Your task to perform on an android device: open app "Venmo" (install if not already installed) and enter user name: "bleedings@gmail.com" and password: "copied" Image 0: 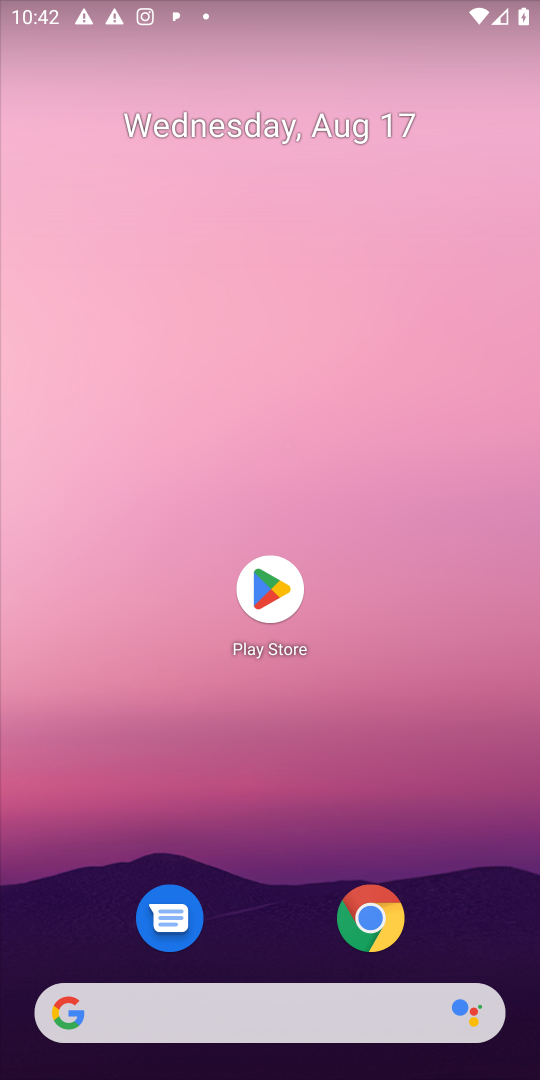
Step 0: press home button
Your task to perform on an android device: open app "Venmo" (install if not already installed) and enter user name: "bleedings@gmail.com" and password: "copied" Image 1: 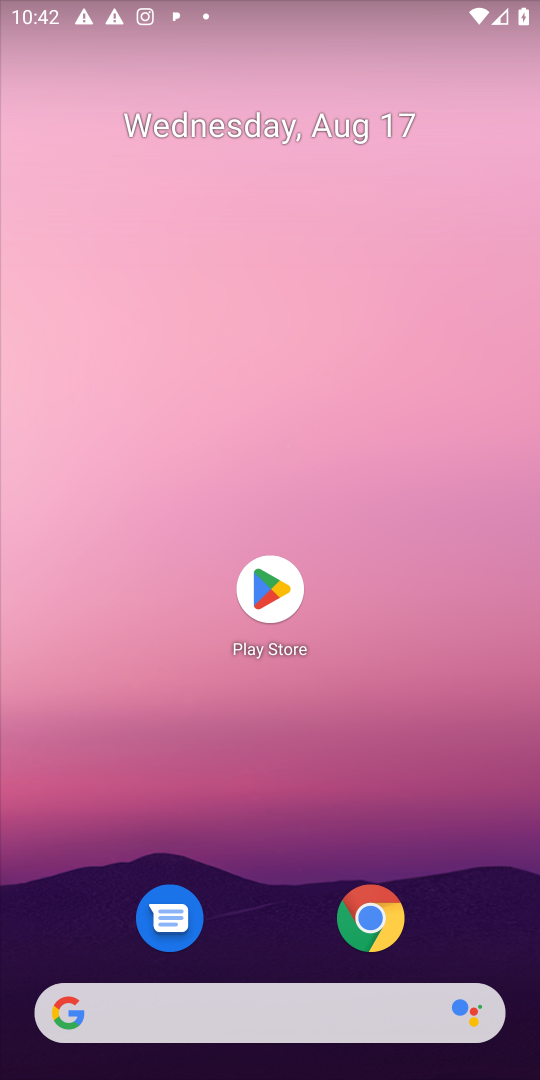
Step 1: click (271, 597)
Your task to perform on an android device: open app "Venmo" (install if not already installed) and enter user name: "bleedings@gmail.com" and password: "copied" Image 2: 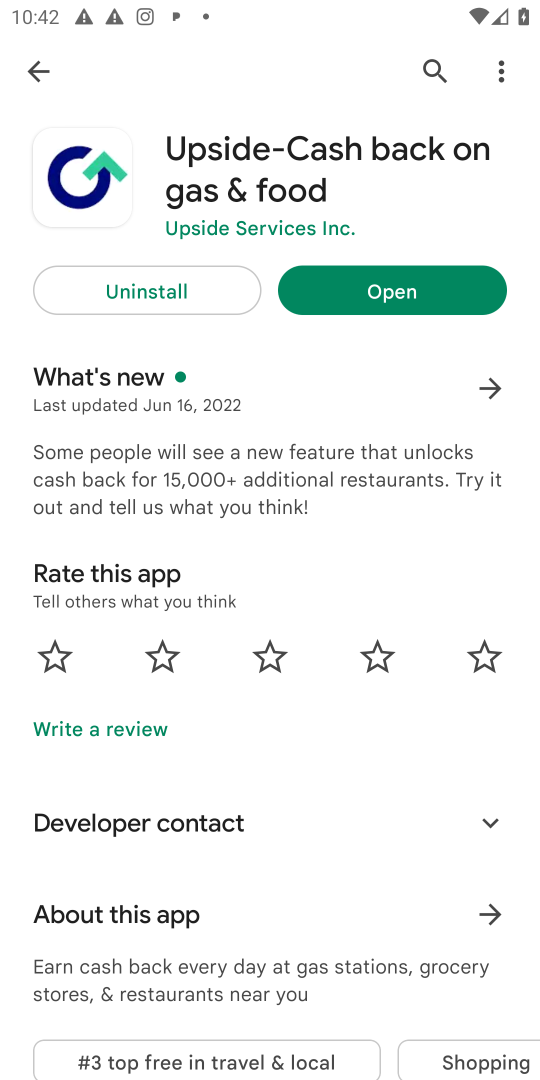
Step 2: click (431, 72)
Your task to perform on an android device: open app "Venmo" (install if not already installed) and enter user name: "bleedings@gmail.com" and password: "copied" Image 3: 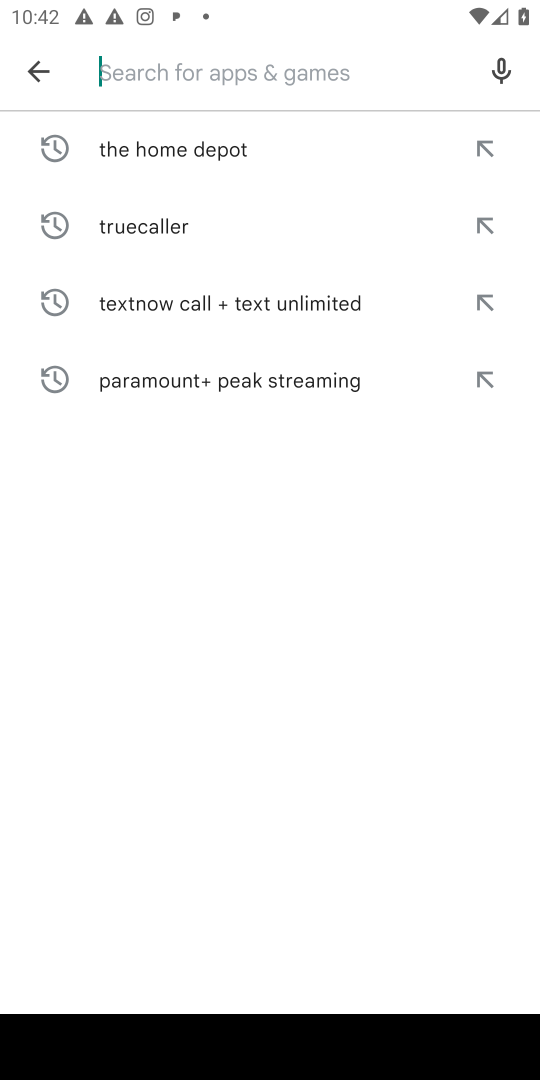
Step 3: type "Venmo"
Your task to perform on an android device: open app "Venmo" (install if not already installed) and enter user name: "bleedings@gmail.com" and password: "copied" Image 4: 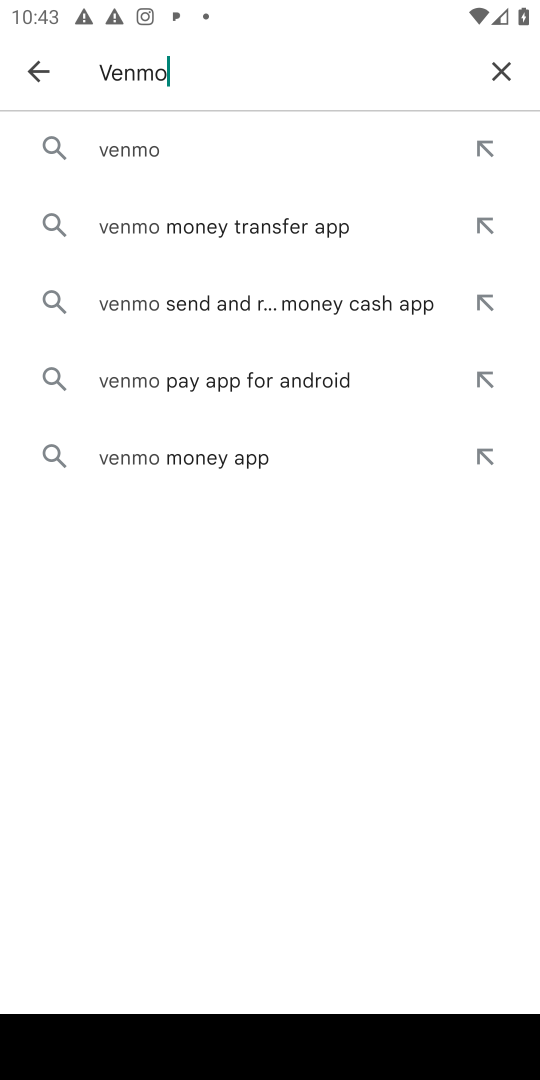
Step 4: click (147, 149)
Your task to perform on an android device: open app "Venmo" (install if not already installed) and enter user name: "bleedings@gmail.com" and password: "copied" Image 5: 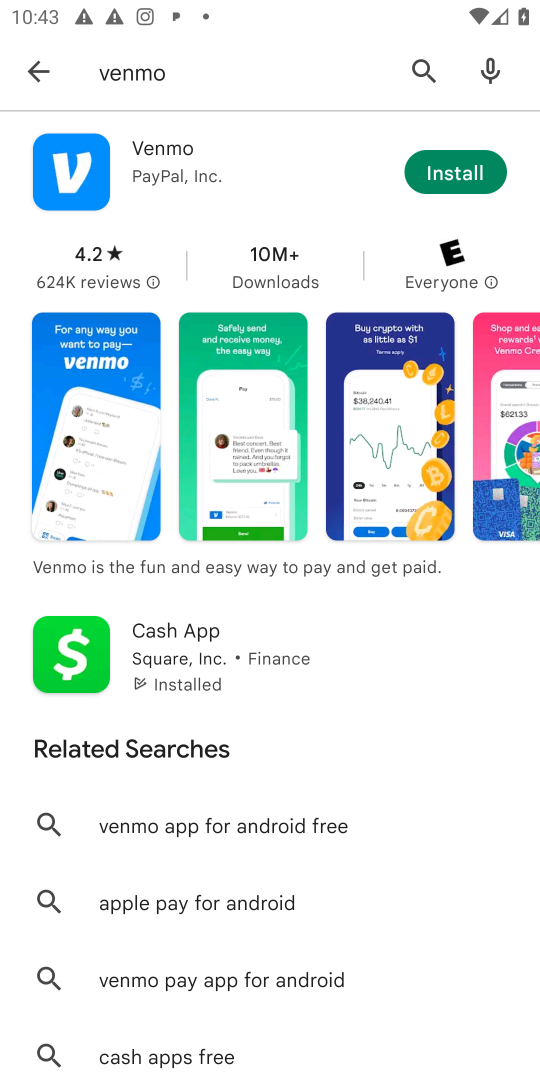
Step 5: click (460, 173)
Your task to perform on an android device: open app "Venmo" (install if not already installed) and enter user name: "bleedings@gmail.com" and password: "copied" Image 6: 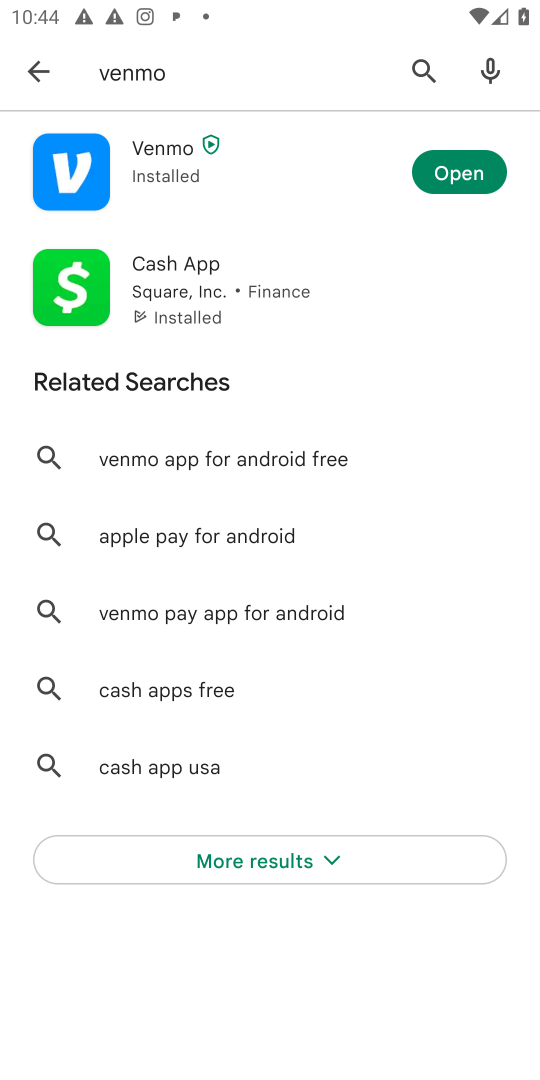
Step 6: click (441, 178)
Your task to perform on an android device: open app "Venmo" (install if not already installed) and enter user name: "bleedings@gmail.com" and password: "copied" Image 7: 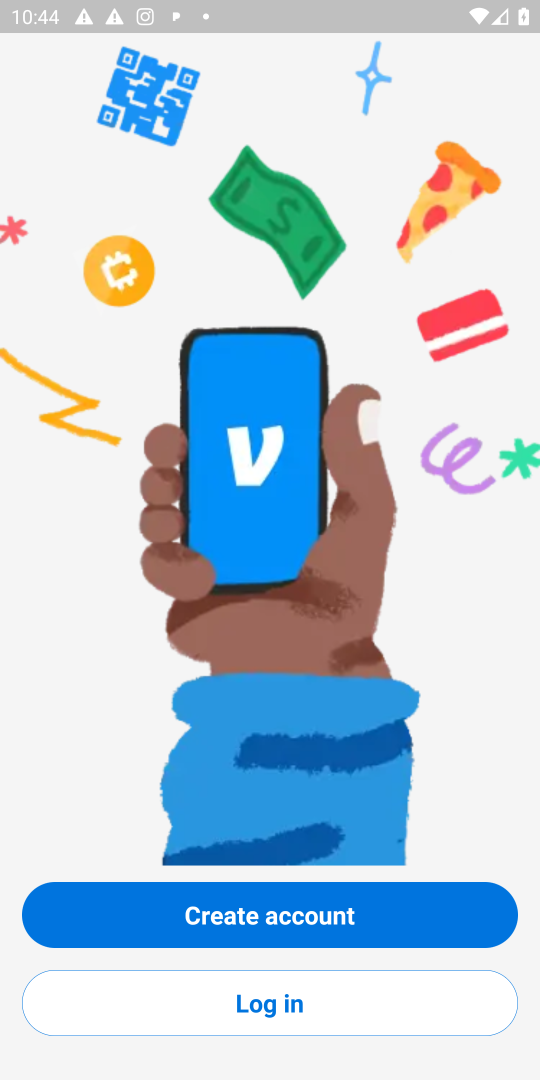
Step 7: click (265, 1005)
Your task to perform on an android device: open app "Venmo" (install if not already installed) and enter user name: "bleedings@gmail.com" and password: "copied" Image 8: 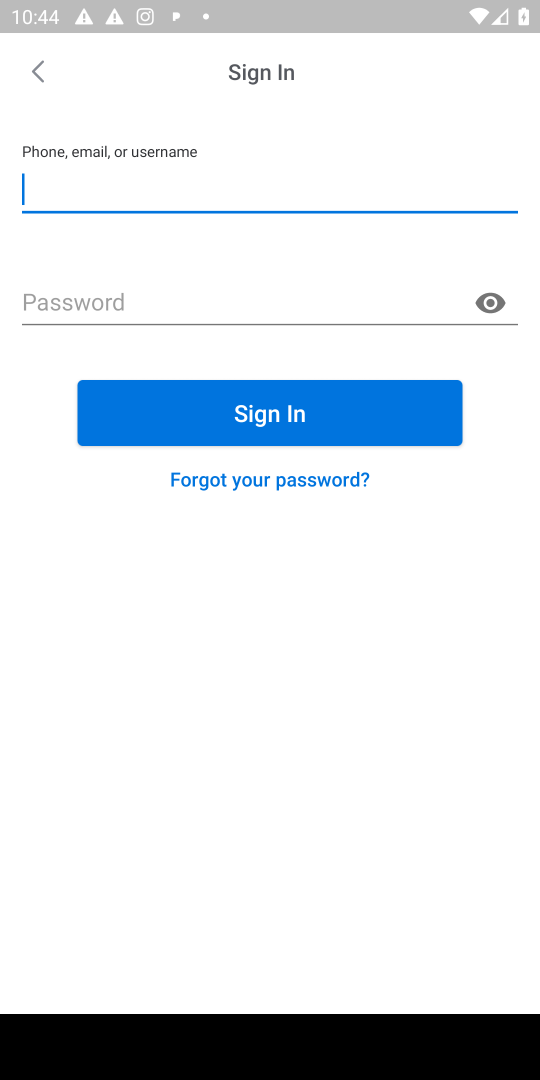
Step 8: type "bleedings@gmail.com"
Your task to perform on an android device: open app "Venmo" (install if not already installed) and enter user name: "bleedings@gmail.com" and password: "copied" Image 9: 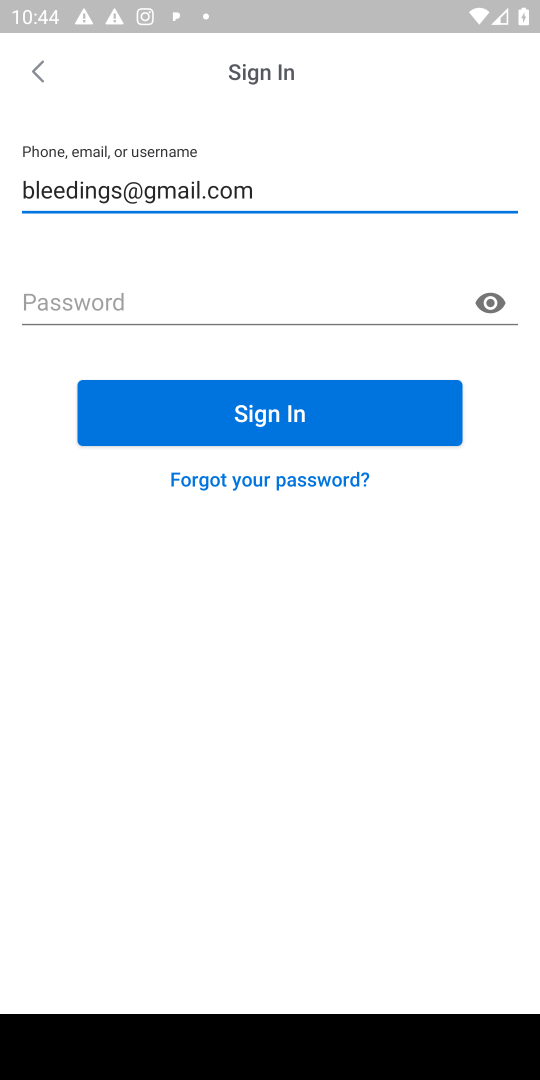
Step 9: click (175, 287)
Your task to perform on an android device: open app "Venmo" (install if not already installed) and enter user name: "bleedings@gmail.com" and password: "copied" Image 10: 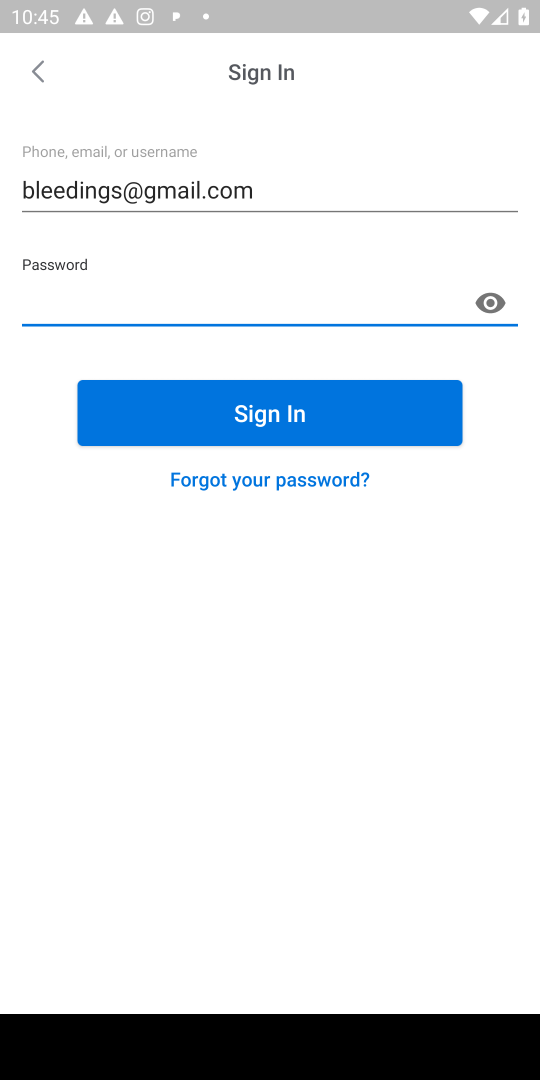
Step 10: type "copied"
Your task to perform on an android device: open app "Venmo" (install if not already installed) and enter user name: "bleedings@gmail.com" and password: "copied" Image 11: 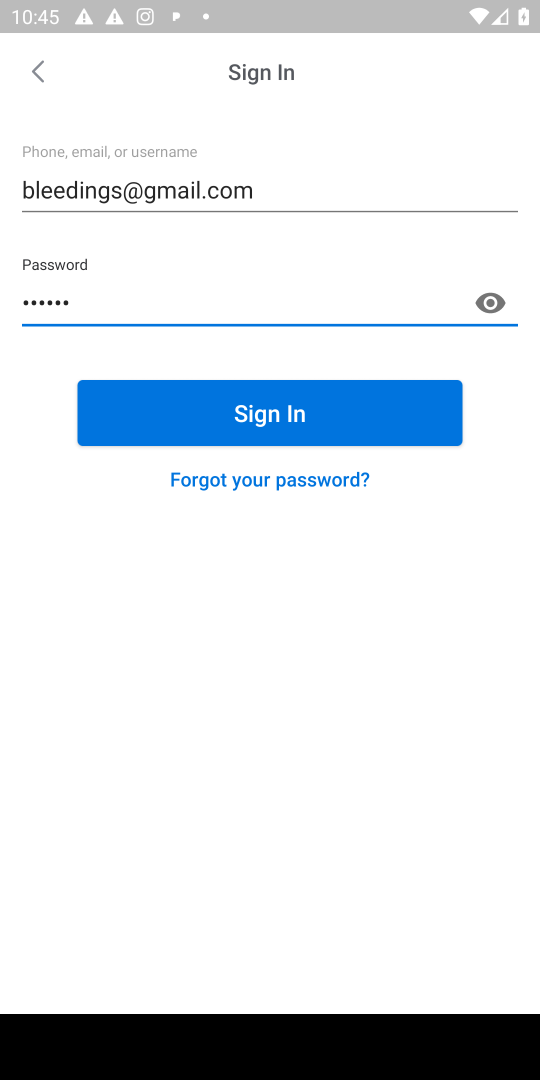
Step 11: task complete